Your task to perform on an android device: What's on my calendar today? Image 0: 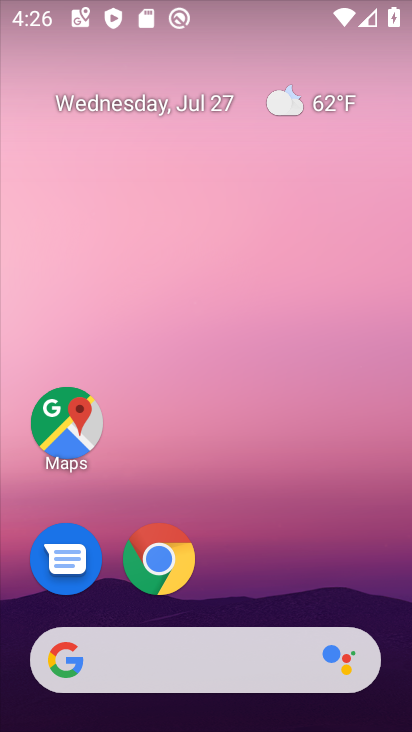
Step 0: drag from (279, 506) to (329, 1)
Your task to perform on an android device: What's on my calendar today? Image 1: 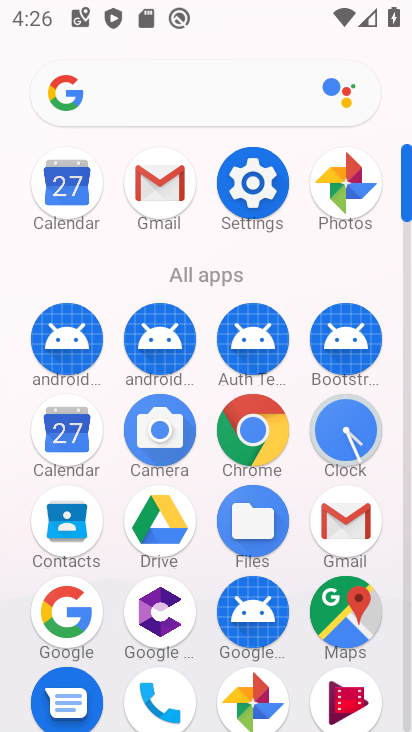
Step 1: click (71, 506)
Your task to perform on an android device: What's on my calendar today? Image 2: 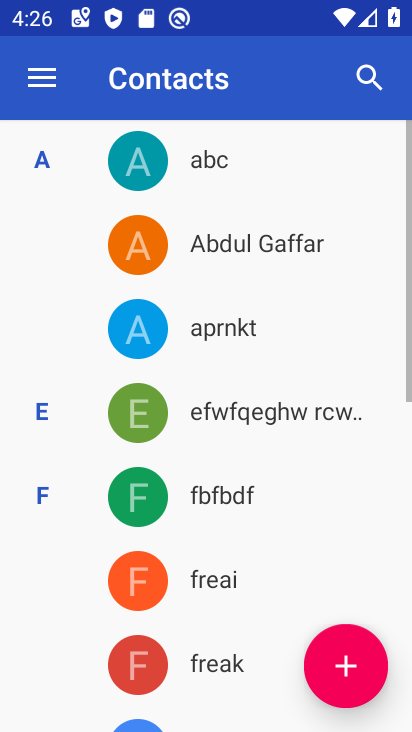
Step 2: press back button
Your task to perform on an android device: What's on my calendar today? Image 3: 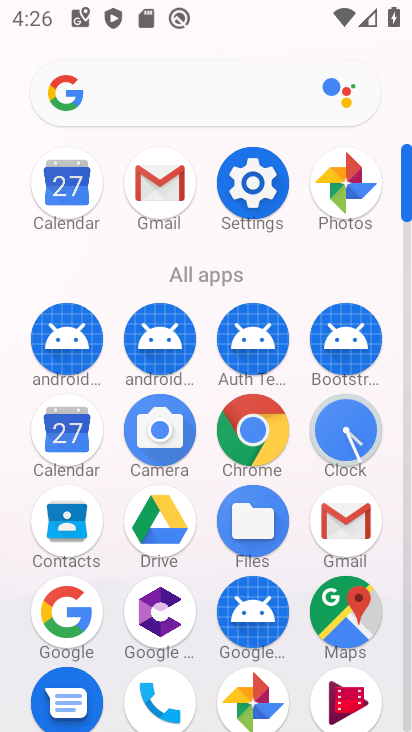
Step 3: click (49, 433)
Your task to perform on an android device: What's on my calendar today? Image 4: 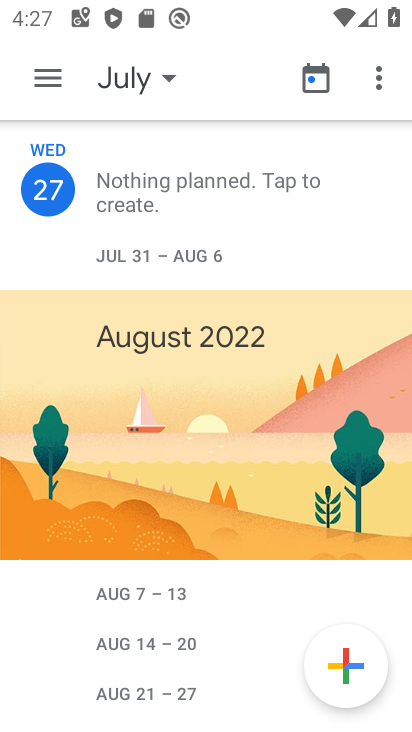
Step 4: task complete